Your task to perform on an android device: Open sound settings Image 0: 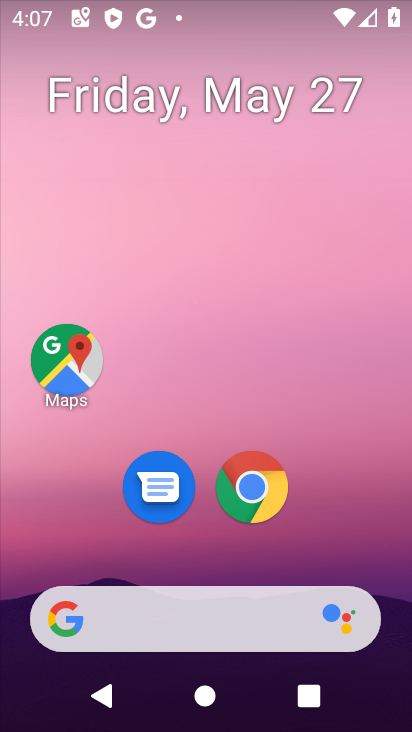
Step 0: drag from (342, 492) to (330, 45)
Your task to perform on an android device: Open sound settings Image 1: 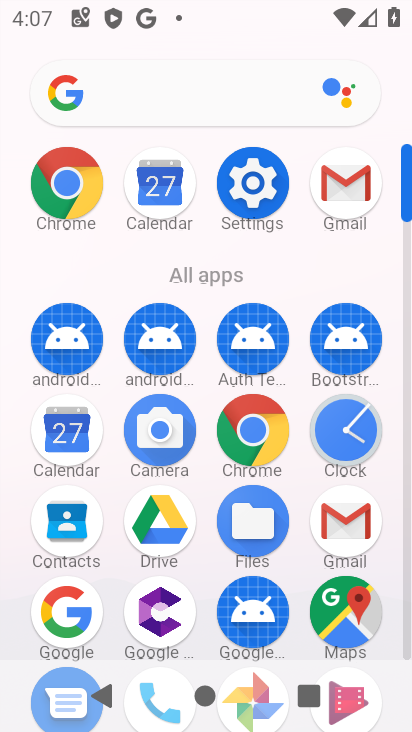
Step 1: click (254, 175)
Your task to perform on an android device: Open sound settings Image 2: 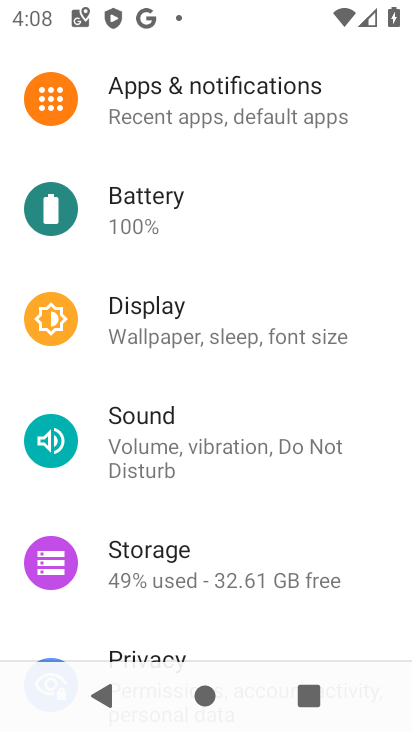
Step 2: click (164, 439)
Your task to perform on an android device: Open sound settings Image 3: 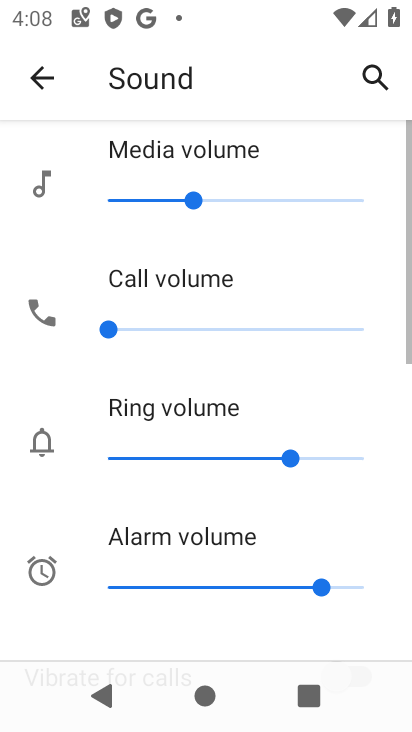
Step 3: task complete